Your task to perform on an android device: delete browsing data in the chrome app Image 0: 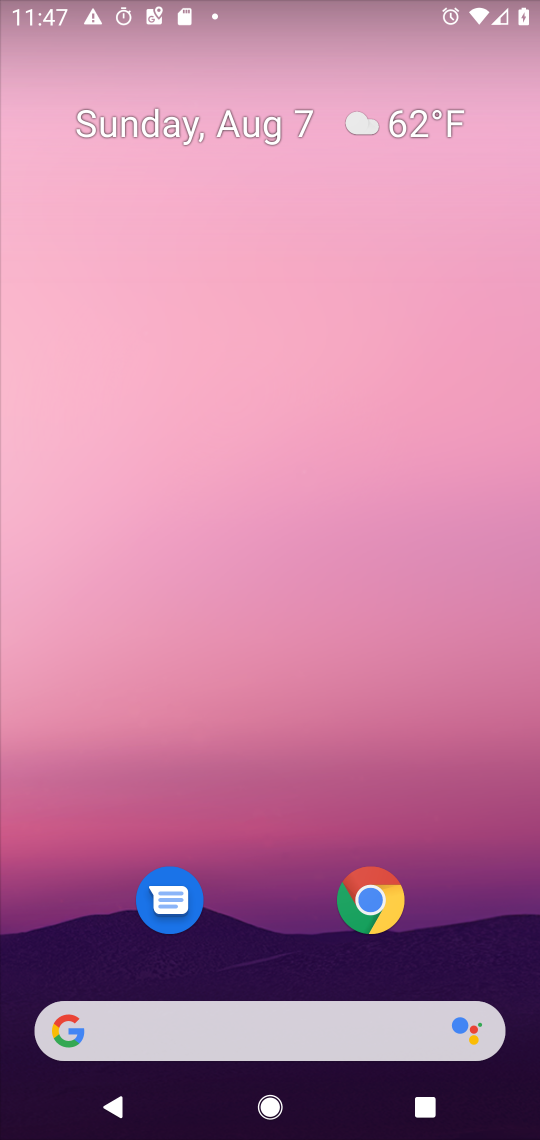
Step 0: press home button
Your task to perform on an android device: delete browsing data in the chrome app Image 1: 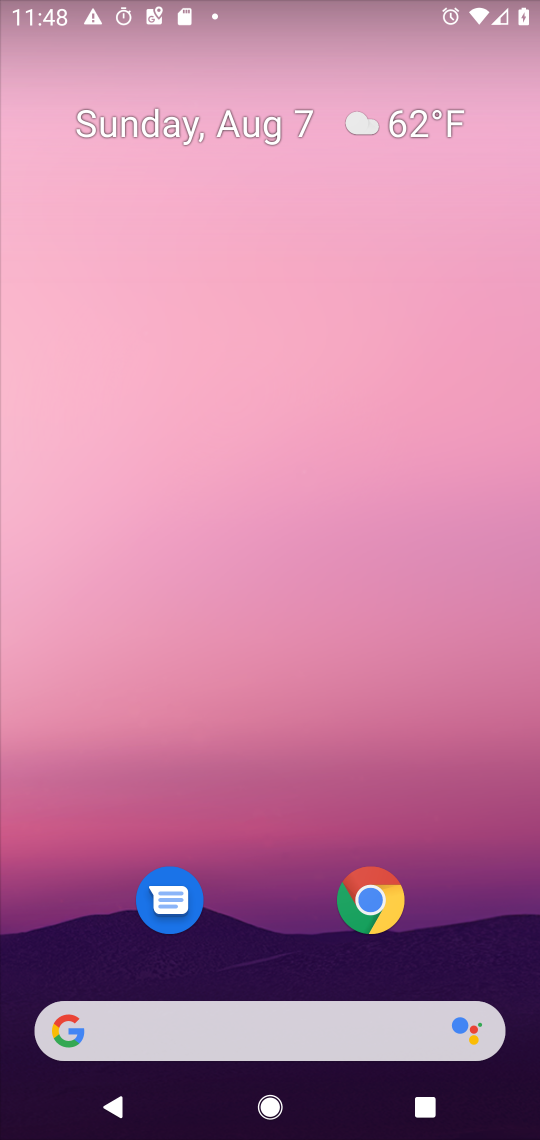
Step 1: click (371, 895)
Your task to perform on an android device: delete browsing data in the chrome app Image 2: 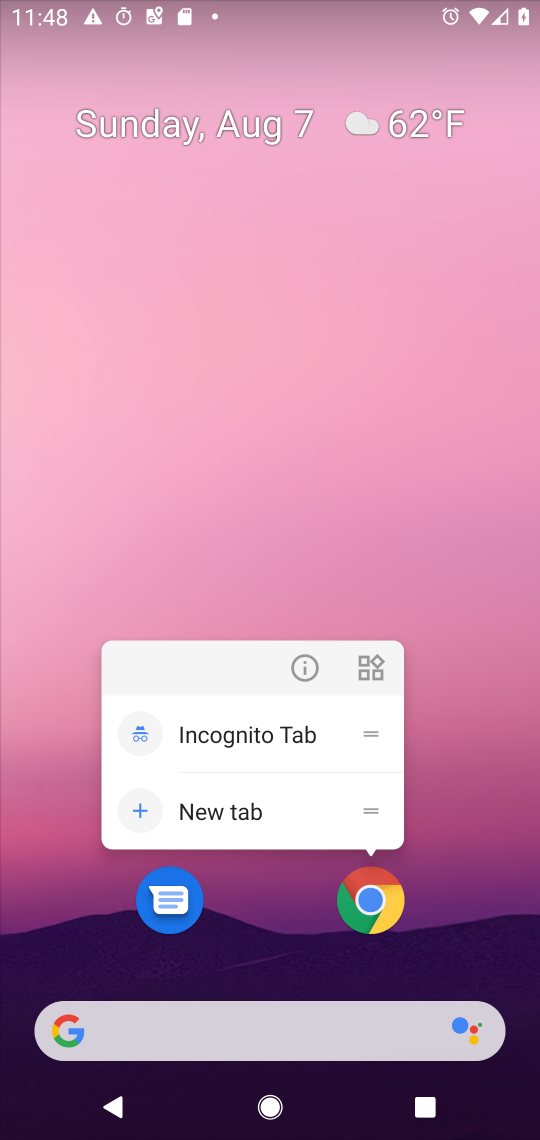
Step 2: click (434, 891)
Your task to perform on an android device: delete browsing data in the chrome app Image 3: 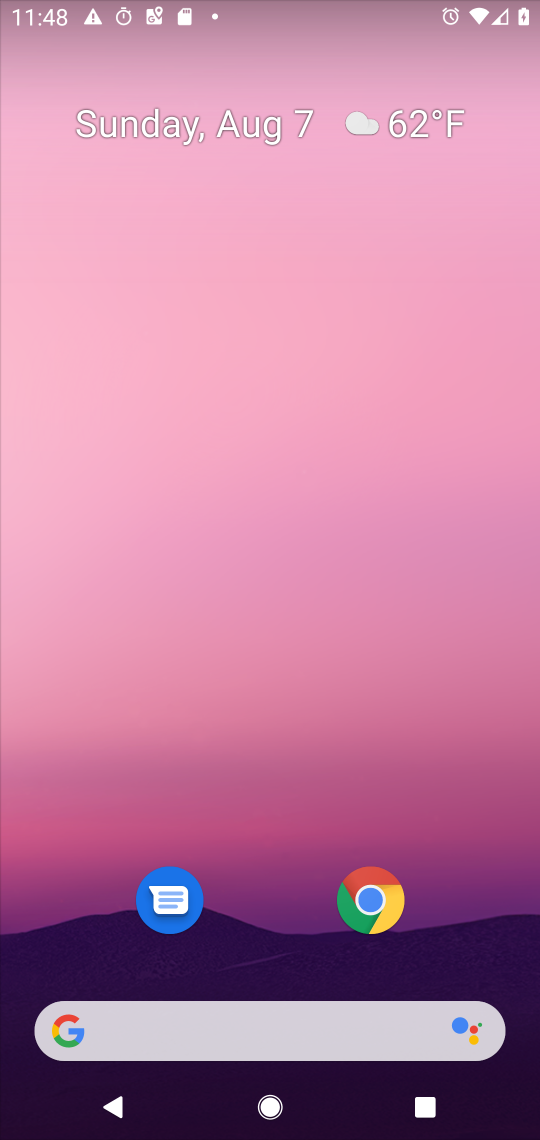
Step 3: drag from (461, 956) to (440, 153)
Your task to perform on an android device: delete browsing data in the chrome app Image 4: 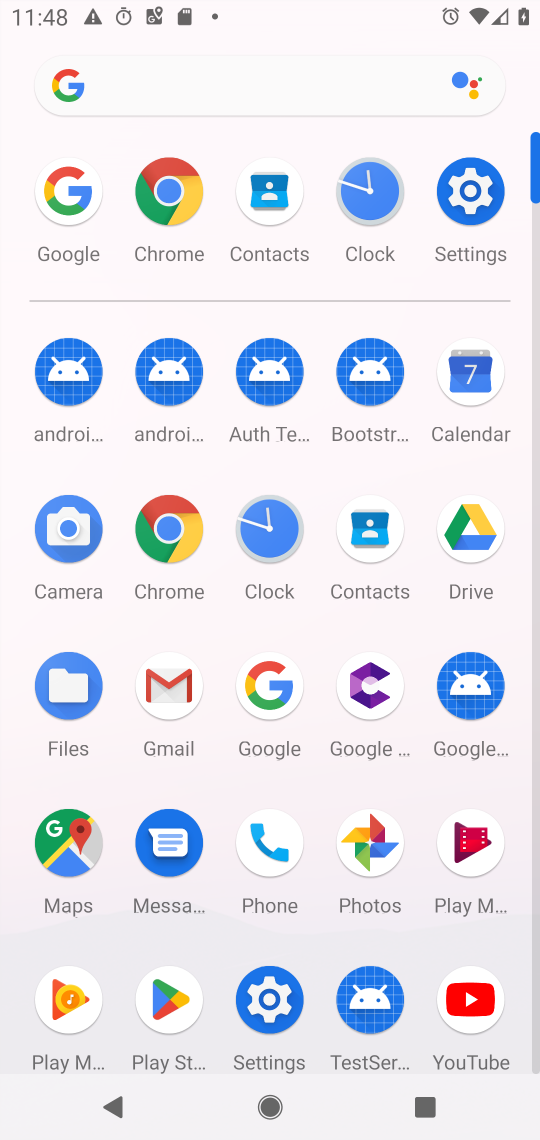
Step 4: click (164, 521)
Your task to perform on an android device: delete browsing data in the chrome app Image 5: 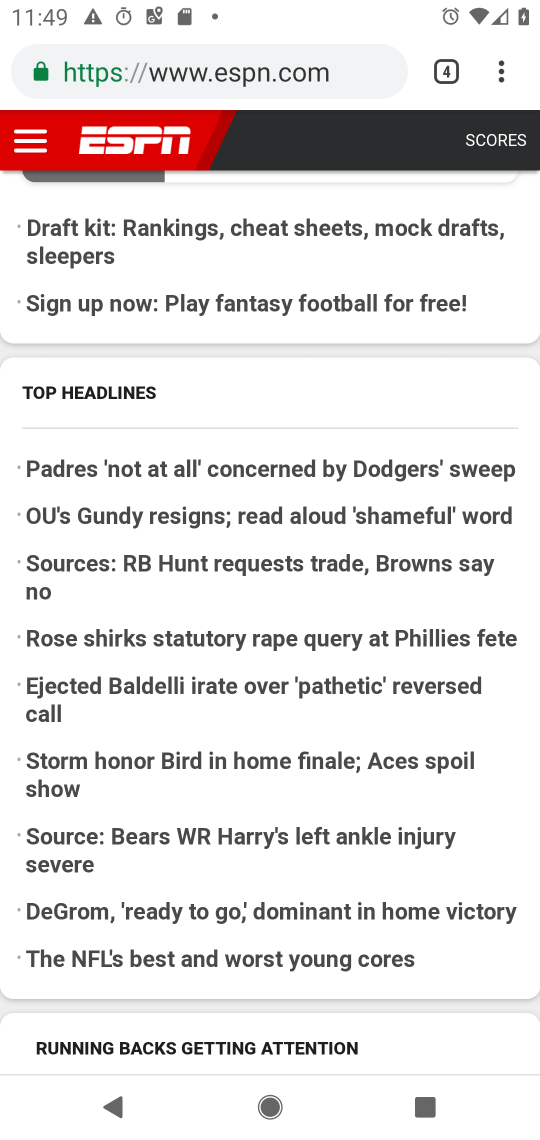
Step 5: click (495, 66)
Your task to perform on an android device: delete browsing data in the chrome app Image 6: 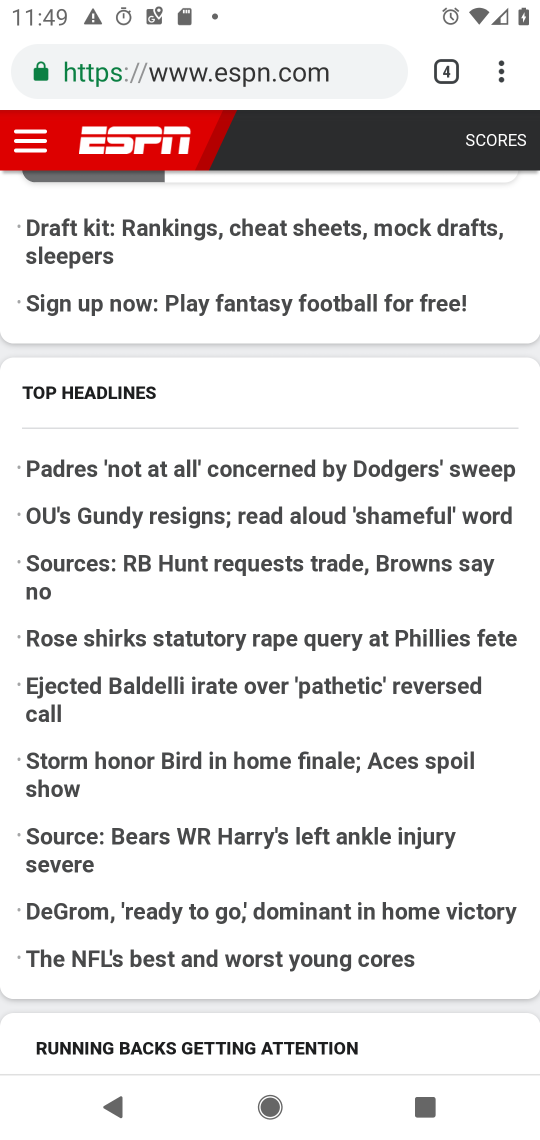
Step 6: click (502, 71)
Your task to perform on an android device: delete browsing data in the chrome app Image 7: 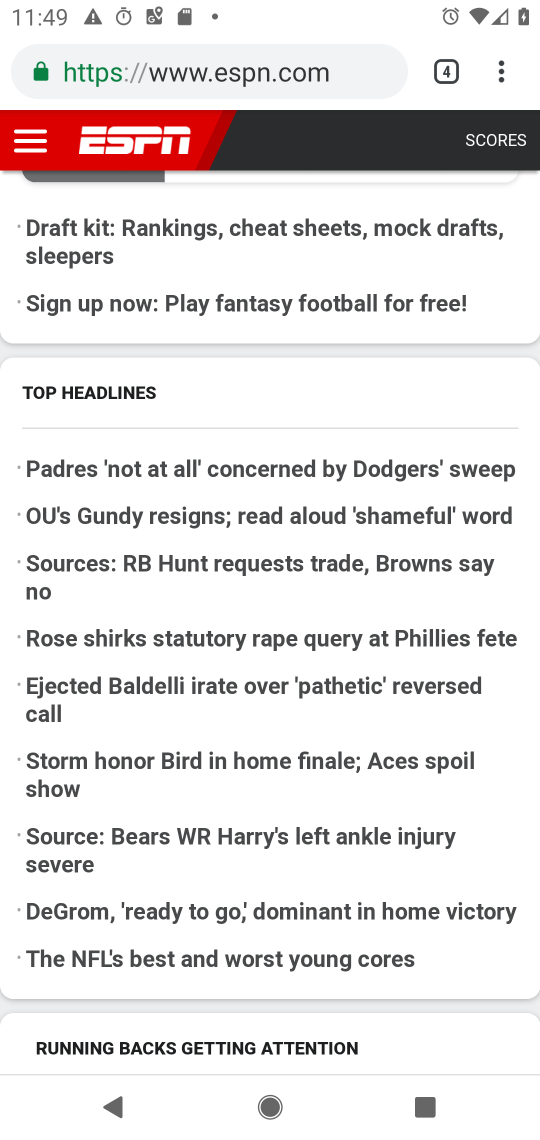
Step 7: click (496, 67)
Your task to perform on an android device: delete browsing data in the chrome app Image 8: 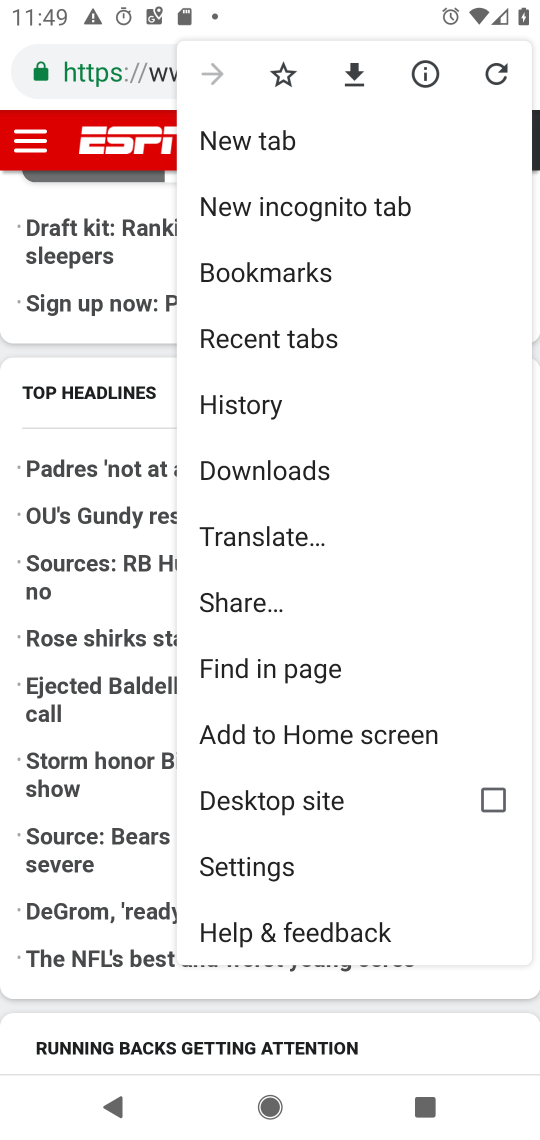
Step 8: click (309, 402)
Your task to perform on an android device: delete browsing data in the chrome app Image 9: 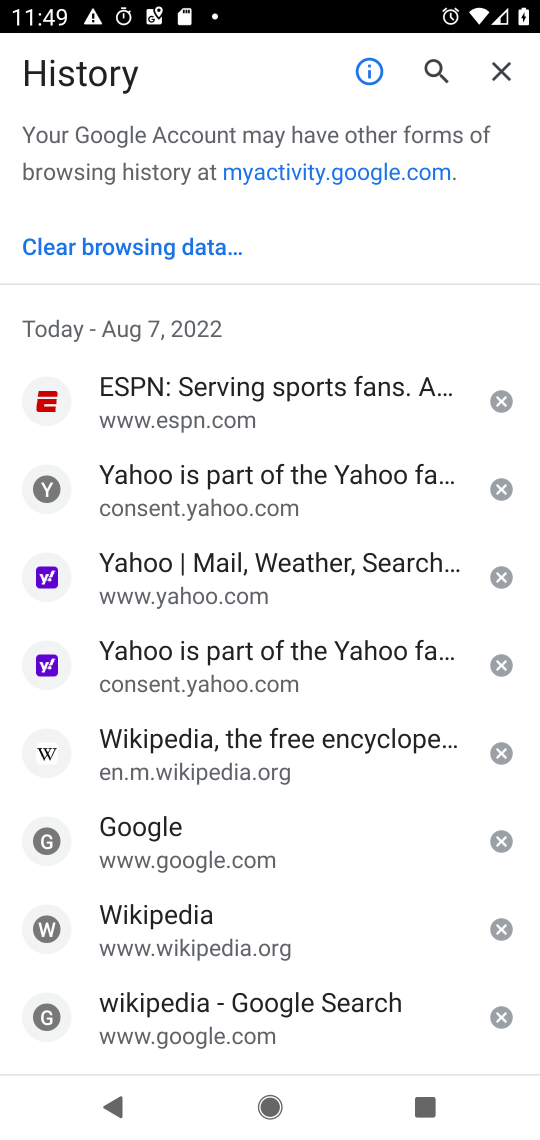
Step 9: click (147, 246)
Your task to perform on an android device: delete browsing data in the chrome app Image 10: 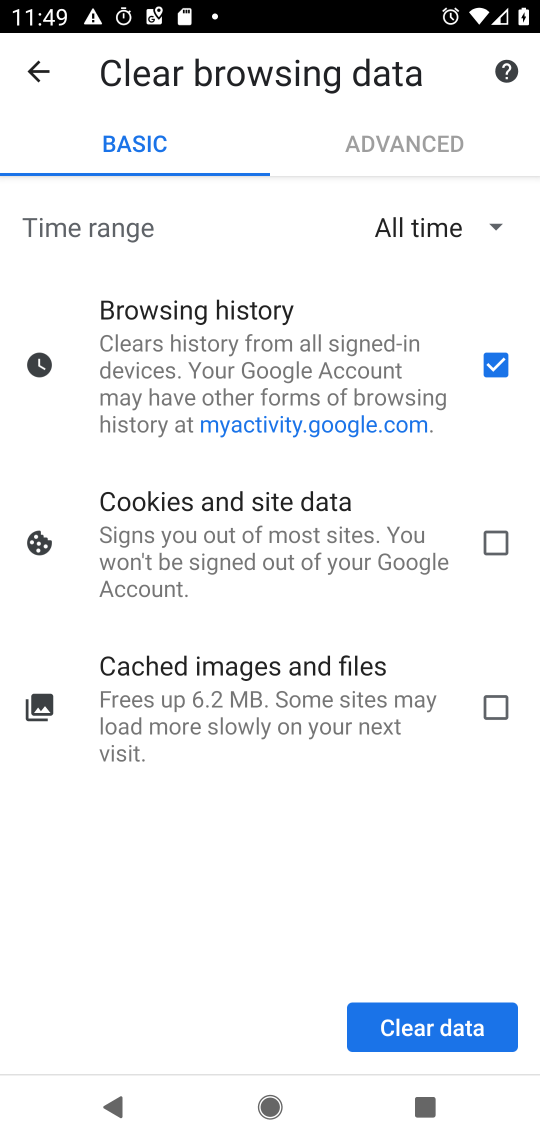
Step 10: click (448, 1032)
Your task to perform on an android device: delete browsing data in the chrome app Image 11: 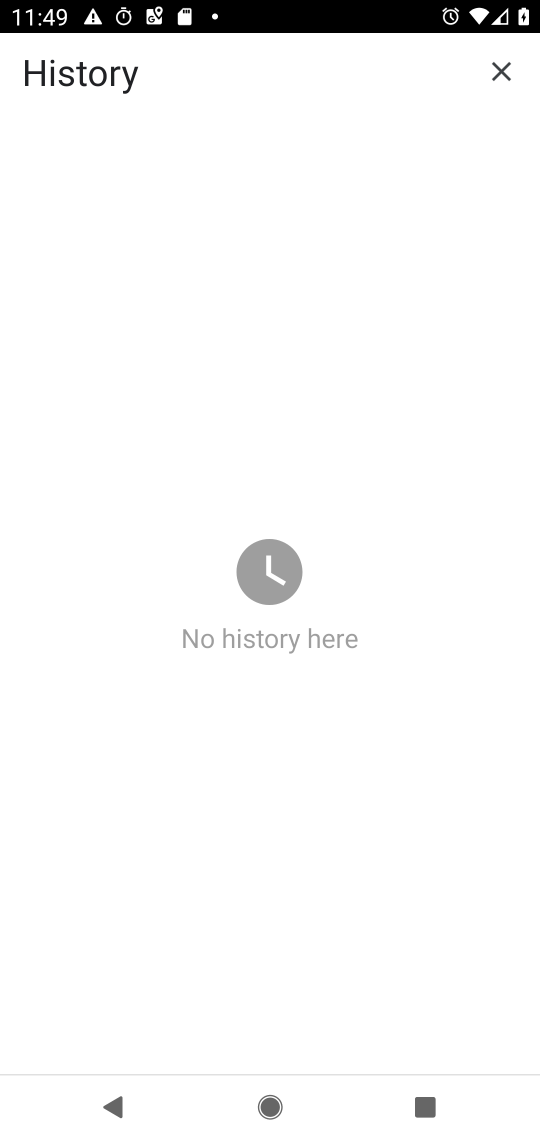
Step 11: task complete